Your task to perform on an android device: Search for pizza restaurants on Maps Image 0: 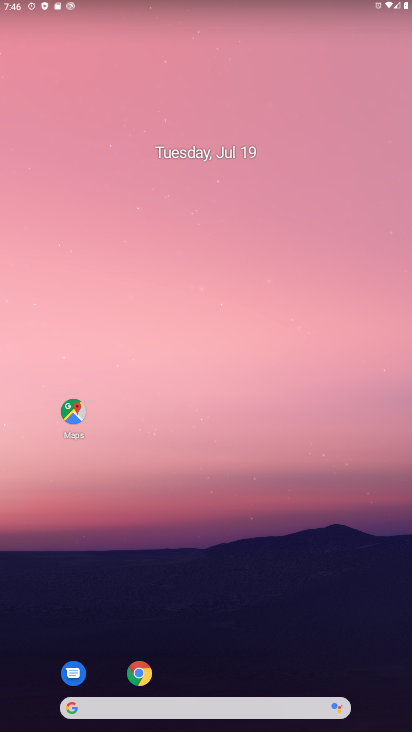
Step 0: drag from (260, 569) to (298, 4)
Your task to perform on an android device: Search for pizza restaurants on Maps Image 1: 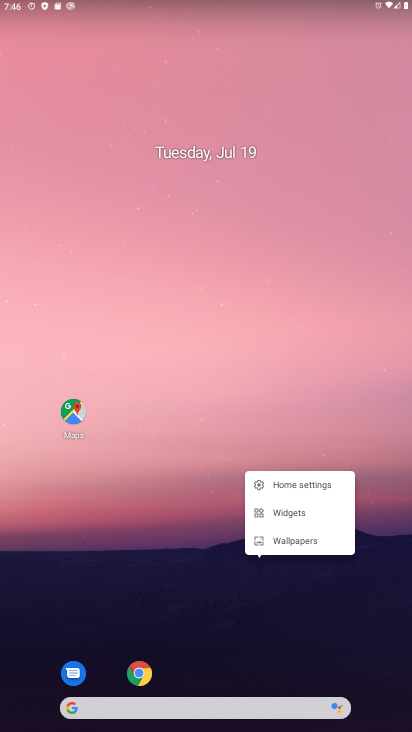
Step 1: click (228, 640)
Your task to perform on an android device: Search for pizza restaurants on Maps Image 2: 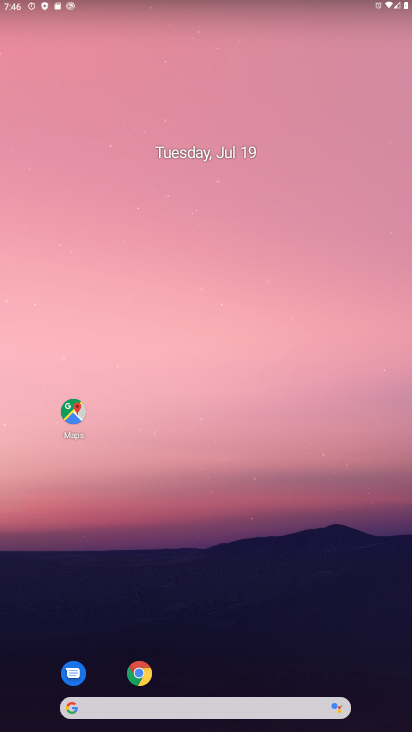
Step 2: drag from (235, 666) to (282, 0)
Your task to perform on an android device: Search for pizza restaurants on Maps Image 3: 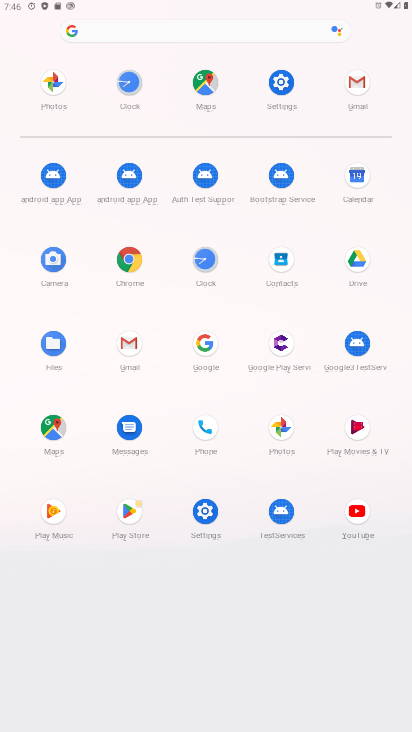
Step 3: click (56, 434)
Your task to perform on an android device: Search for pizza restaurants on Maps Image 4: 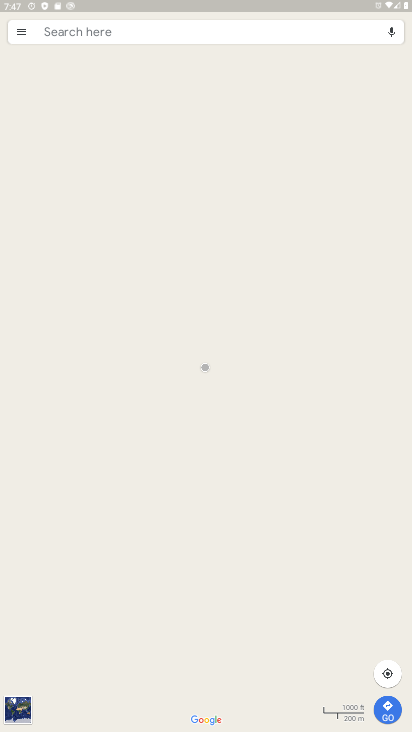
Step 4: click (198, 26)
Your task to perform on an android device: Search for pizza restaurants on Maps Image 5: 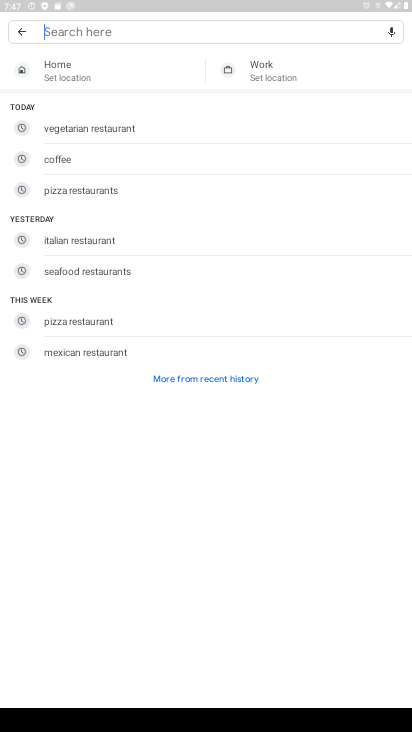
Step 5: click (92, 191)
Your task to perform on an android device: Search for pizza restaurants on Maps Image 6: 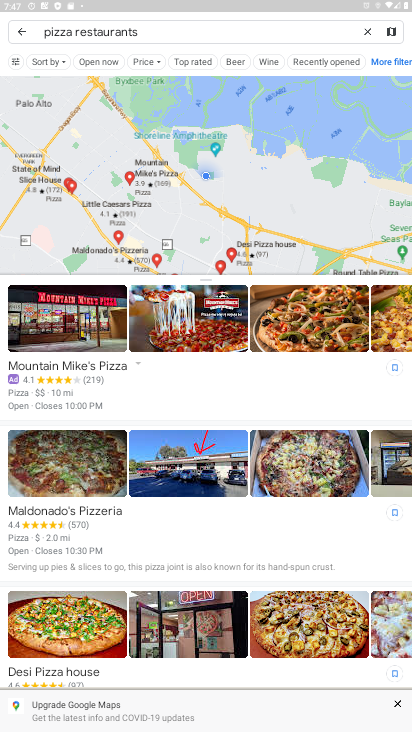
Step 6: task complete